Your task to perform on an android device: Check the news Image 0: 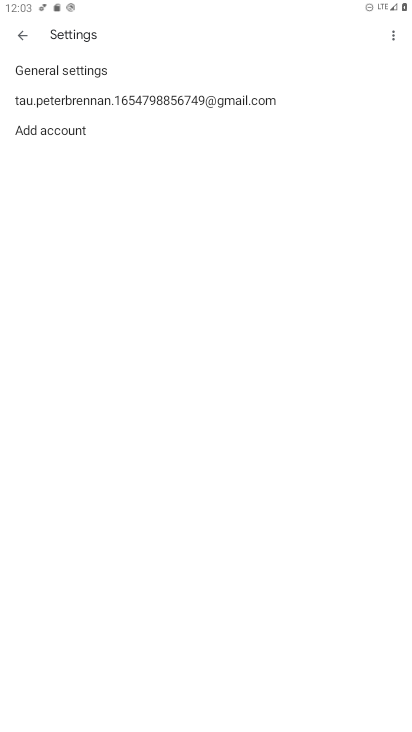
Step 0: press home button
Your task to perform on an android device: Check the news Image 1: 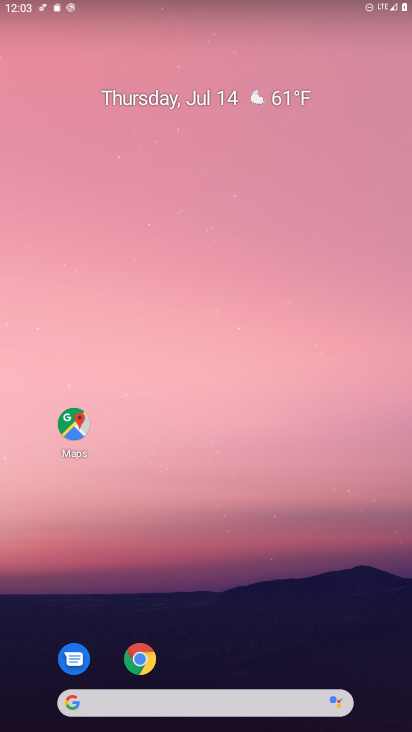
Step 1: task complete